Your task to perform on an android device: Go to privacy settings Image 0: 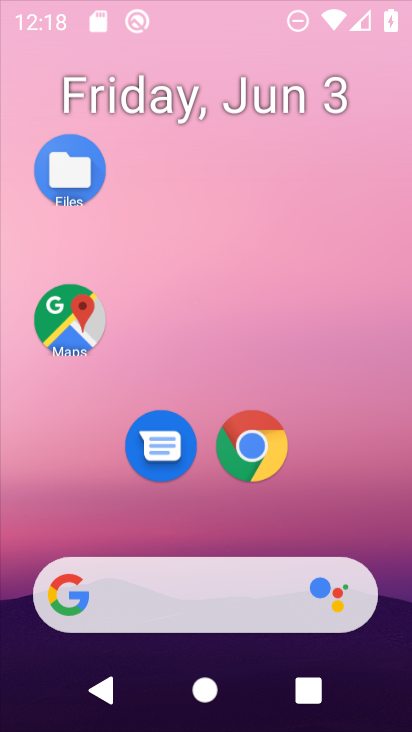
Step 0: click (49, 96)
Your task to perform on an android device: Go to privacy settings Image 1: 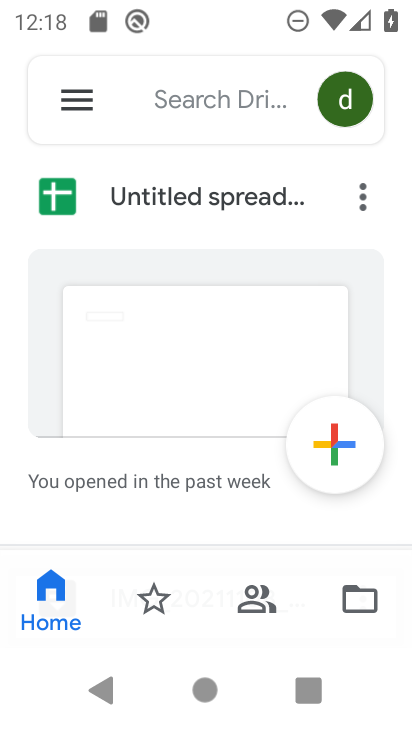
Step 1: press back button
Your task to perform on an android device: Go to privacy settings Image 2: 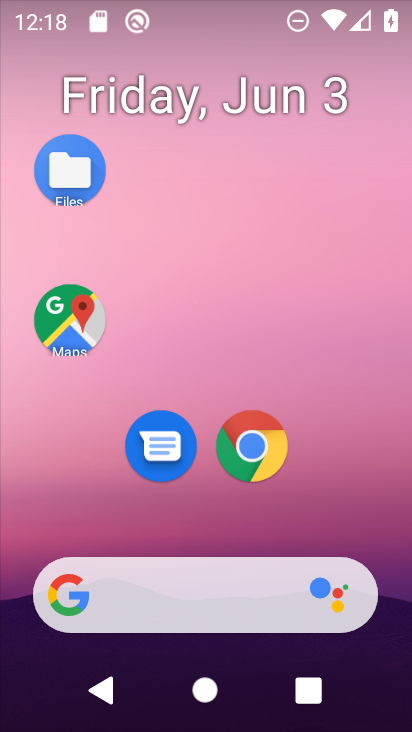
Step 2: drag from (215, 650) to (188, 21)
Your task to perform on an android device: Go to privacy settings Image 3: 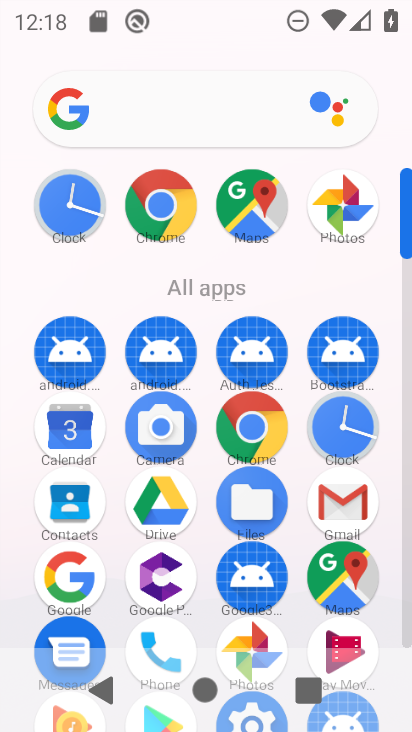
Step 3: drag from (247, 527) to (191, 227)
Your task to perform on an android device: Go to privacy settings Image 4: 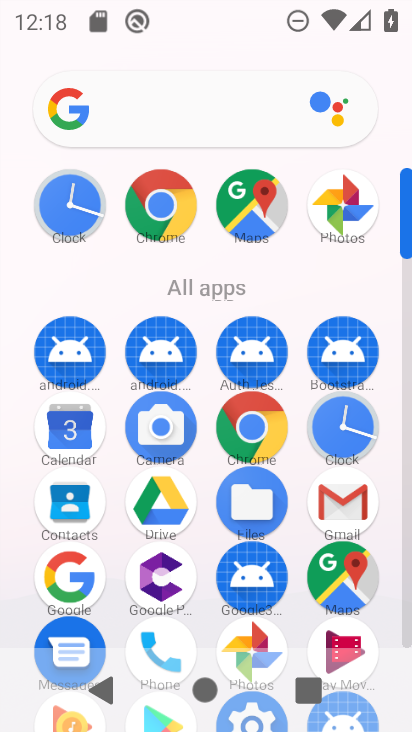
Step 4: drag from (195, 494) to (171, 255)
Your task to perform on an android device: Go to privacy settings Image 5: 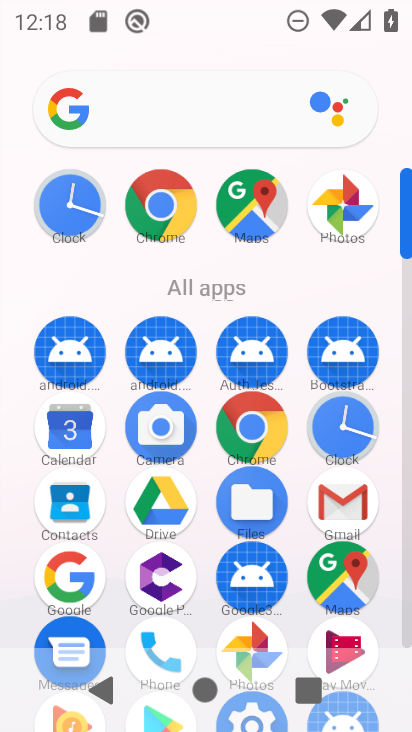
Step 5: drag from (310, 533) to (291, 284)
Your task to perform on an android device: Go to privacy settings Image 6: 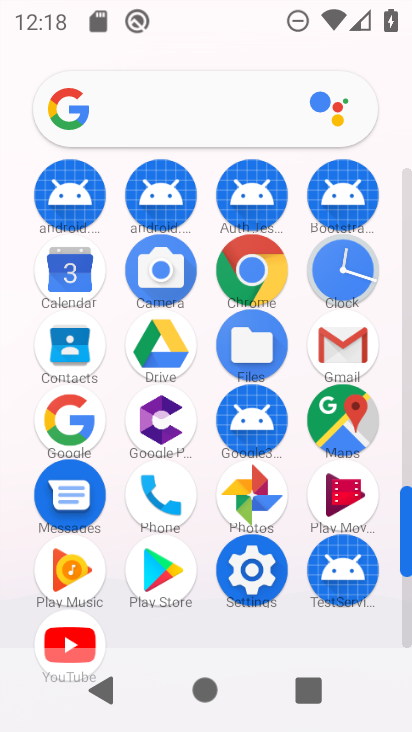
Step 6: drag from (286, 523) to (292, 228)
Your task to perform on an android device: Go to privacy settings Image 7: 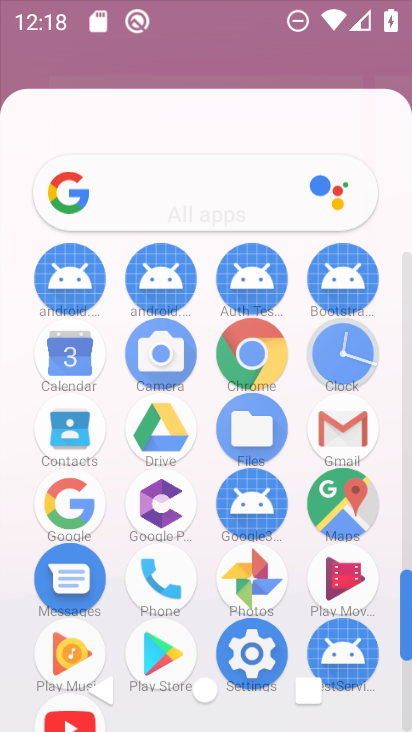
Step 7: drag from (407, 574) to (401, 635)
Your task to perform on an android device: Go to privacy settings Image 8: 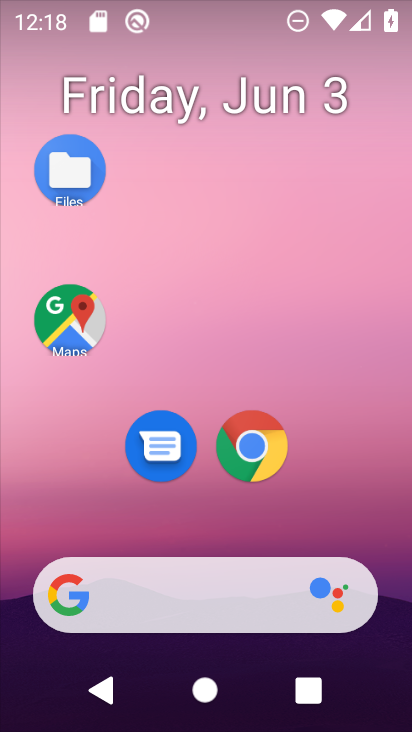
Step 8: click (395, 628)
Your task to perform on an android device: Go to privacy settings Image 9: 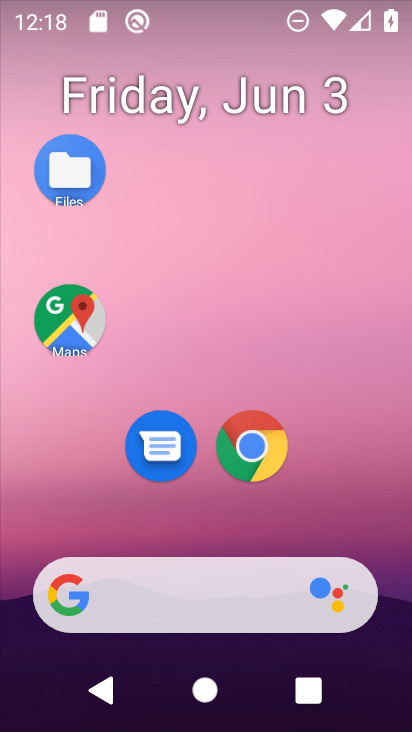
Step 9: drag from (253, 664) to (198, 225)
Your task to perform on an android device: Go to privacy settings Image 10: 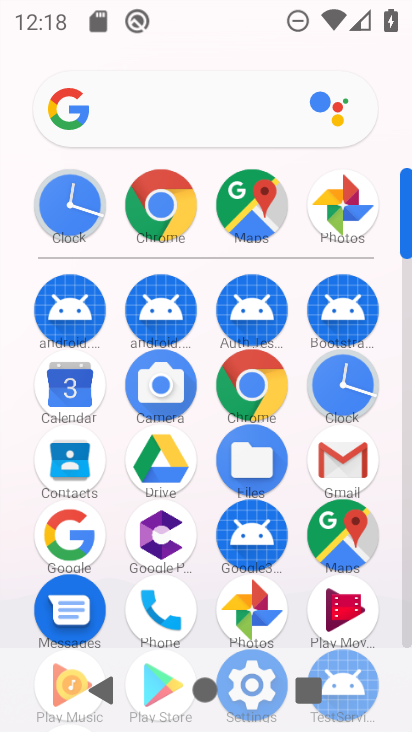
Step 10: drag from (277, 565) to (257, 319)
Your task to perform on an android device: Go to privacy settings Image 11: 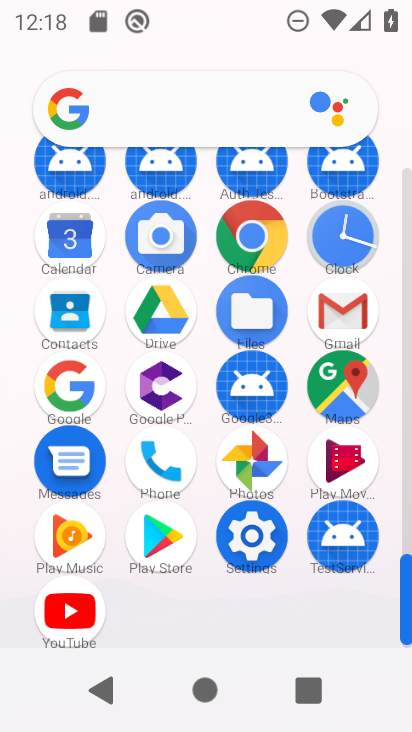
Step 11: drag from (279, 510) to (268, 169)
Your task to perform on an android device: Go to privacy settings Image 12: 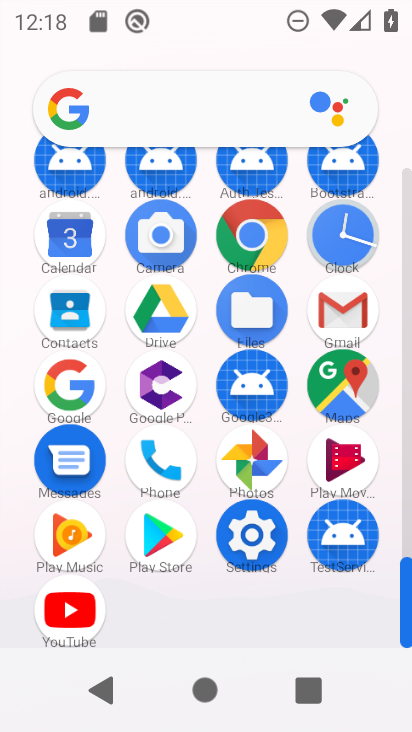
Step 12: click (245, 519)
Your task to perform on an android device: Go to privacy settings Image 13: 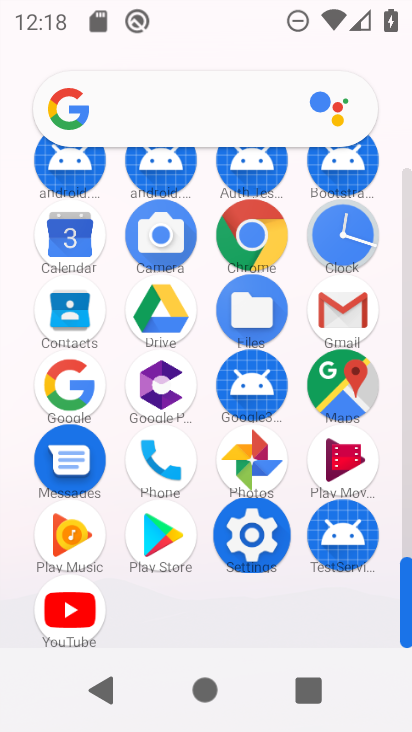
Step 13: click (244, 535)
Your task to perform on an android device: Go to privacy settings Image 14: 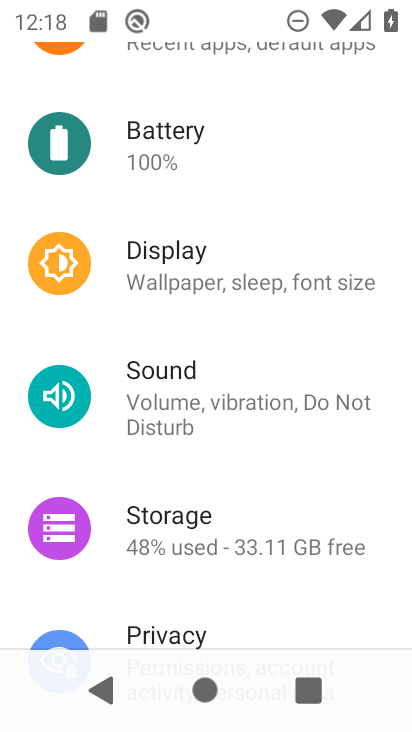
Step 14: click (250, 542)
Your task to perform on an android device: Go to privacy settings Image 15: 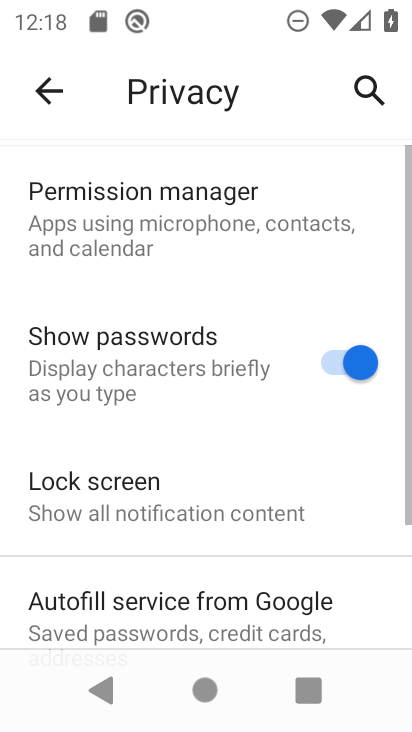
Step 15: task complete